Your task to perform on an android device: empty trash in google photos Image 0: 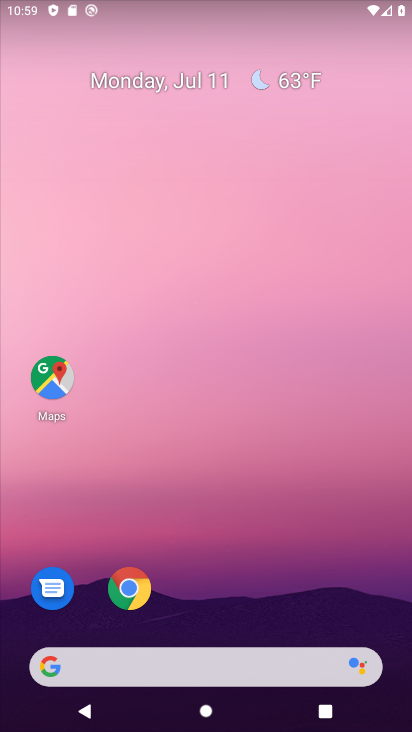
Step 0: drag from (243, 711) to (203, 173)
Your task to perform on an android device: empty trash in google photos Image 1: 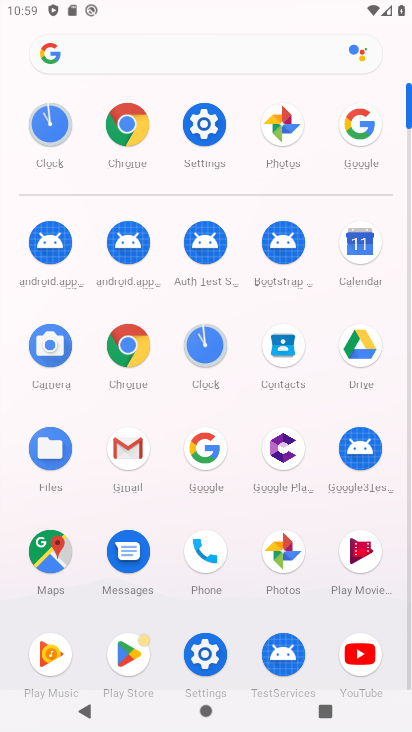
Step 1: click (281, 554)
Your task to perform on an android device: empty trash in google photos Image 2: 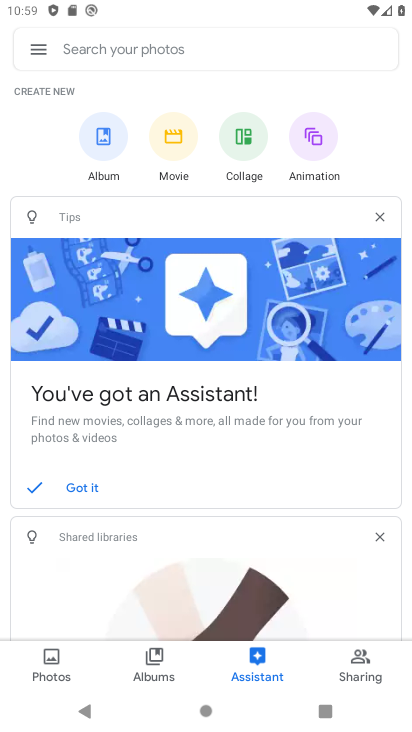
Step 2: click (38, 45)
Your task to perform on an android device: empty trash in google photos Image 3: 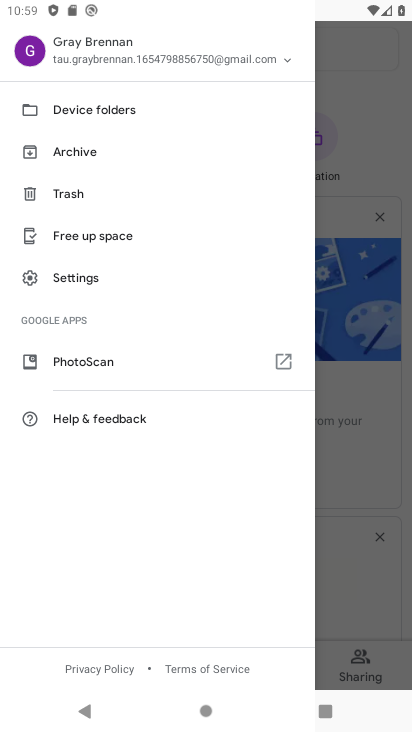
Step 3: click (61, 191)
Your task to perform on an android device: empty trash in google photos Image 4: 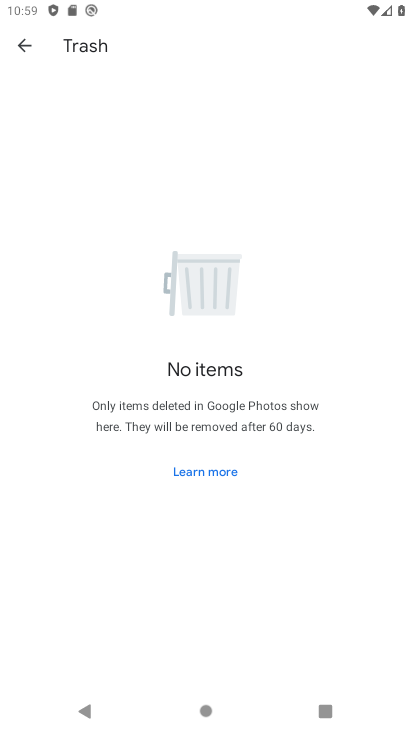
Step 4: task complete